Your task to perform on an android device: Add razer blade to the cart on walmart.com, then select checkout. Image 0: 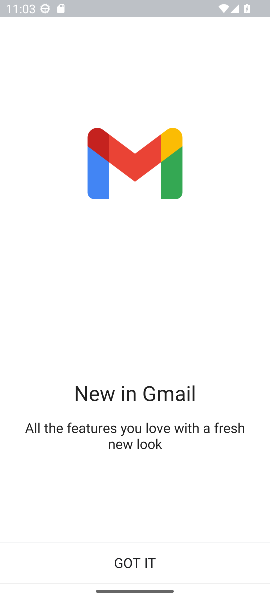
Step 0: press home button
Your task to perform on an android device: Add razer blade to the cart on walmart.com, then select checkout. Image 1: 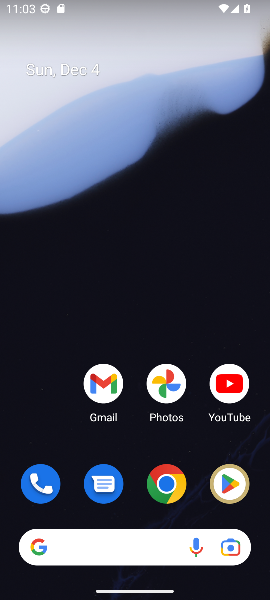
Step 1: click (169, 489)
Your task to perform on an android device: Add razer blade to the cart on walmart.com, then select checkout. Image 2: 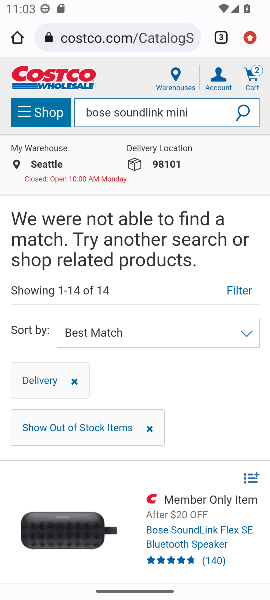
Step 2: click (95, 43)
Your task to perform on an android device: Add razer blade to the cart on walmart.com, then select checkout. Image 3: 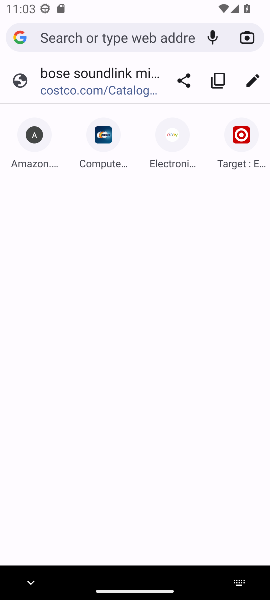
Step 3: type "walmart.com"
Your task to perform on an android device: Add razer blade to the cart on walmart.com, then select checkout. Image 4: 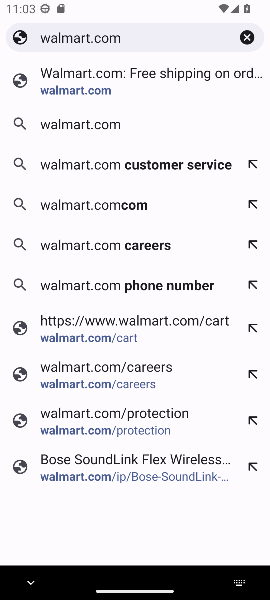
Step 4: click (52, 94)
Your task to perform on an android device: Add razer blade to the cart on walmart.com, then select checkout. Image 5: 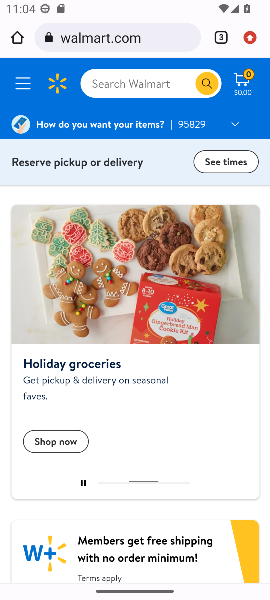
Step 5: click (95, 84)
Your task to perform on an android device: Add razer blade to the cart on walmart.com, then select checkout. Image 6: 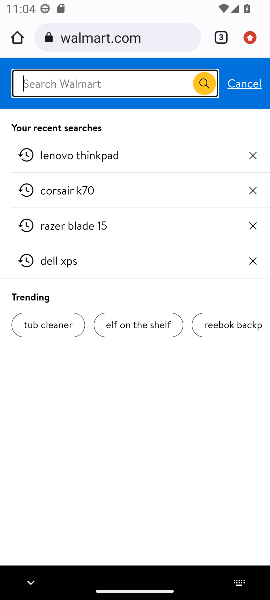
Step 6: type "razer blade "
Your task to perform on an android device: Add razer blade to the cart on walmart.com, then select checkout. Image 7: 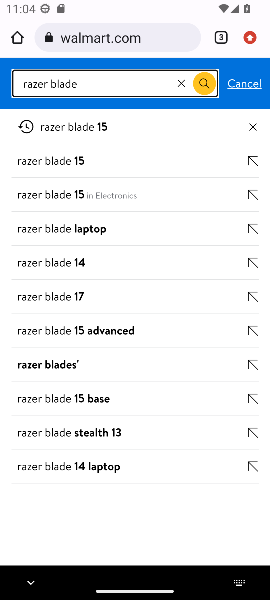
Step 7: click (69, 130)
Your task to perform on an android device: Add razer blade to the cart on walmart.com, then select checkout. Image 8: 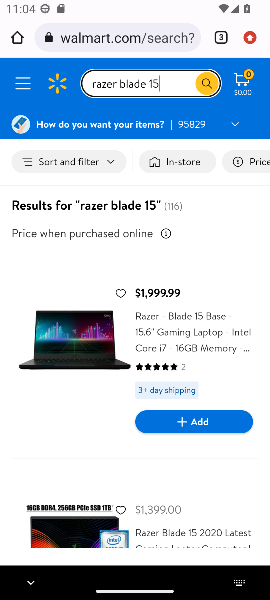
Step 8: click (180, 422)
Your task to perform on an android device: Add razer blade to the cart on walmart.com, then select checkout. Image 9: 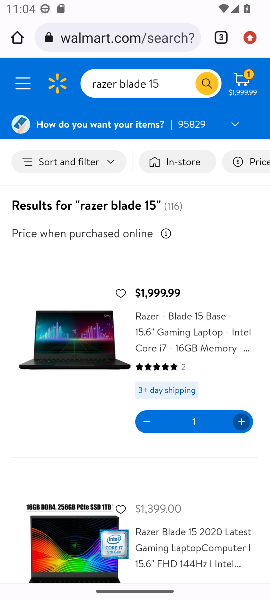
Step 9: click (247, 85)
Your task to perform on an android device: Add razer blade to the cart on walmart.com, then select checkout. Image 10: 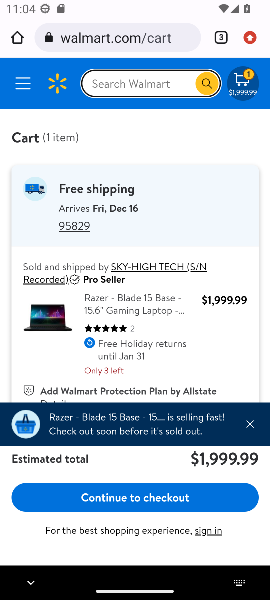
Step 10: click (133, 496)
Your task to perform on an android device: Add razer blade to the cart on walmart.com, then select checkout. Image 11: 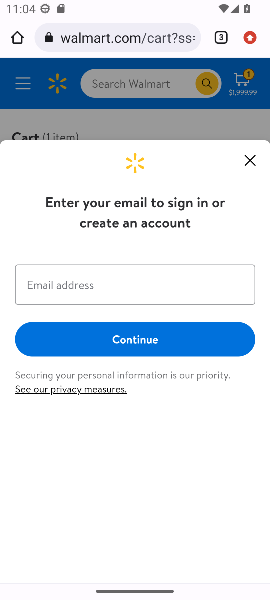
Step 11: task complete